Your task to perform on an android device: read, delete, or share a saved page in the chrome app Image 0: 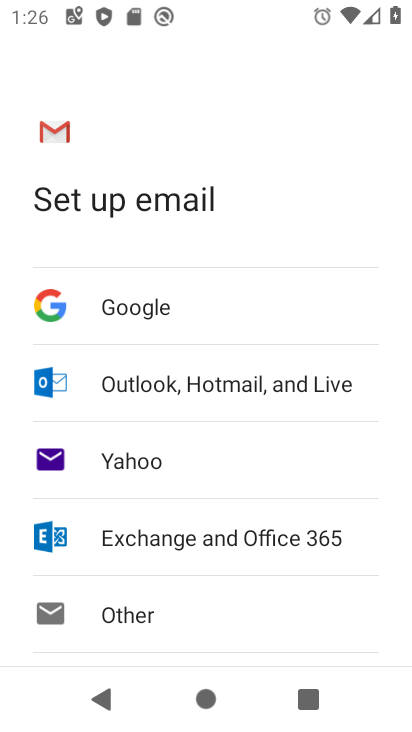
Step 0: press home button
Your task to perform on an android device: read, delete, or share a saved page in the chrome app Image 1: 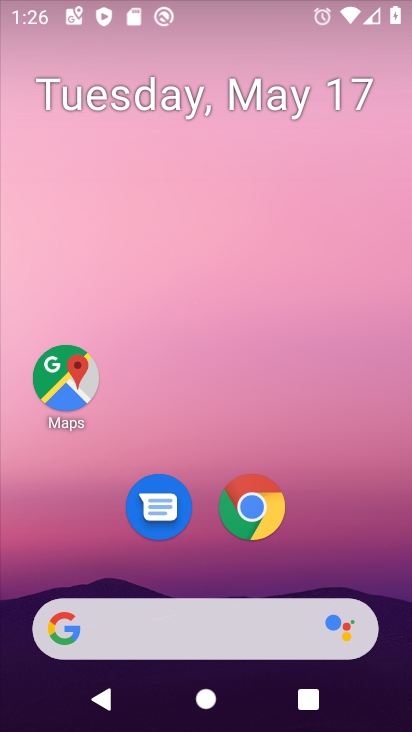
Step 1: drag from (254, 598) to (278, 234)
Your task to perform on an android device: read, delete, or share a saved page in the chrome app Image 2: 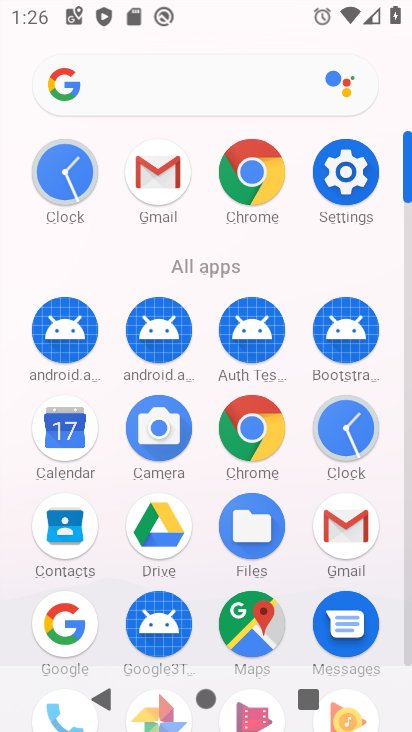
Step 2: click (245, 391)
Your task to perform on an android device: read, delete, or share a saved page in the chrome app Image 3: 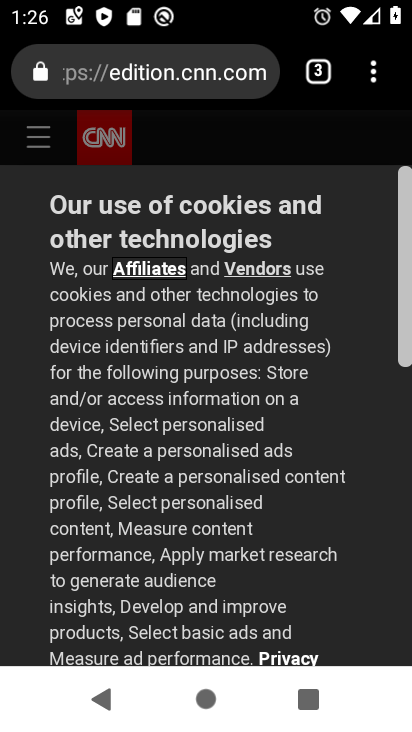
Step 3: click (373, 65)
Your task to perform on an android device: read, delete, or share a saved page in the chrome app Image 4: 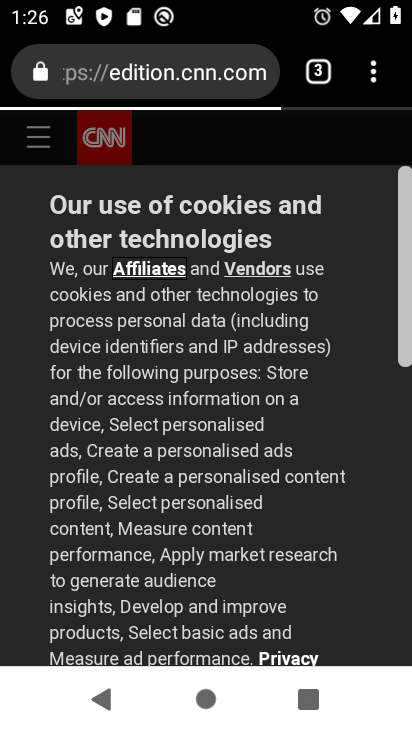
Step 4: click (356, 71)
Your task to perform on an android device: read, delete, or share a saved page in the chrome app Image 5: 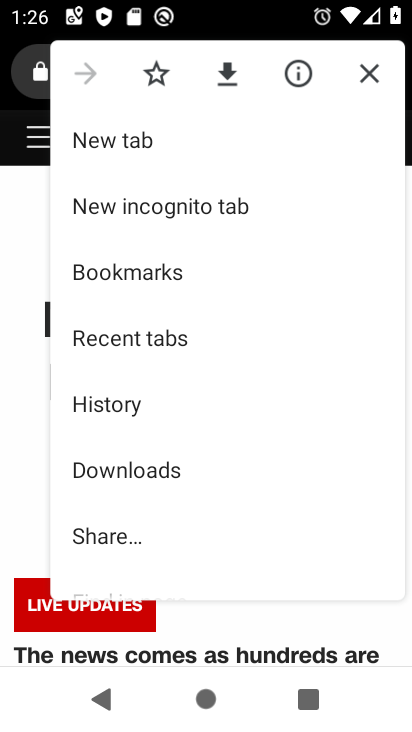
Step 5: drag from (174, 460) to (197, 267)
Your task to perform on an android device: read, delete, or share a saved page in the chrome app Image 6: 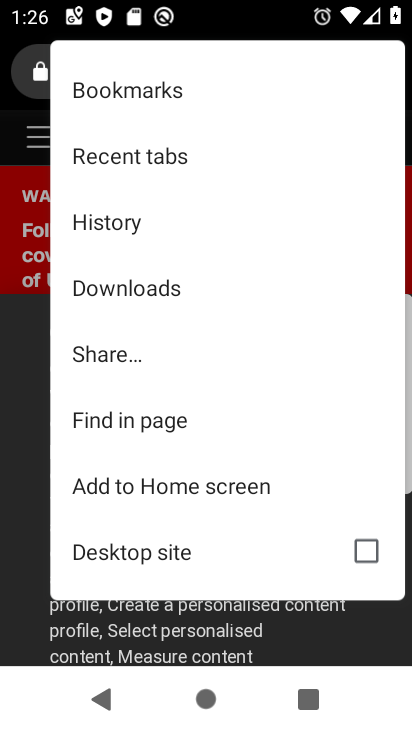
Step 6: click (146, 275)
Your task to perform on an android device: read, delete, or share a saved page in the chrome app Image 7: 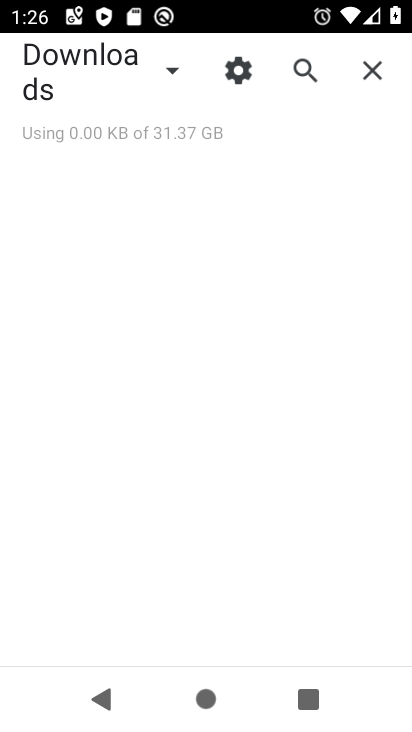
Step 7: click (171, 76)
Your task to perform on an android device: read, delete, or share a saved page in the chrome app Image 8: 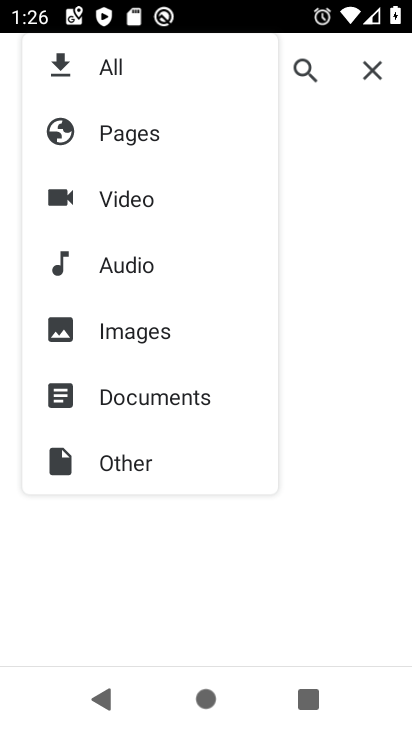
Step 8: click (115, 135)
Your task to perform on an android device: read, delete, or share a saved page in the chrome app Image 9: 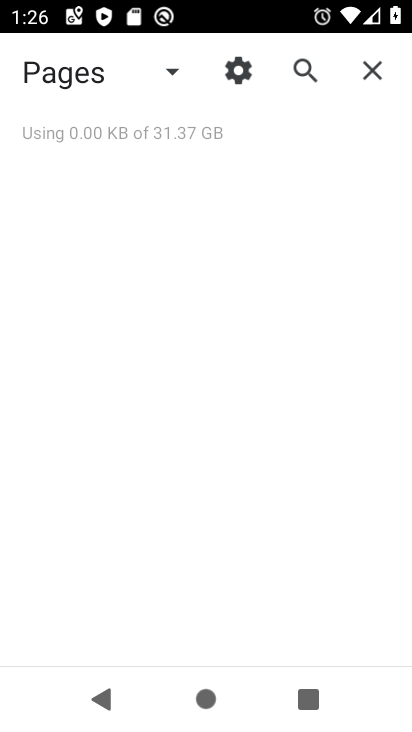
Step 9: task complete